Your task to perform on an android device: remove spam from my inbox in the gmail app Image 0: 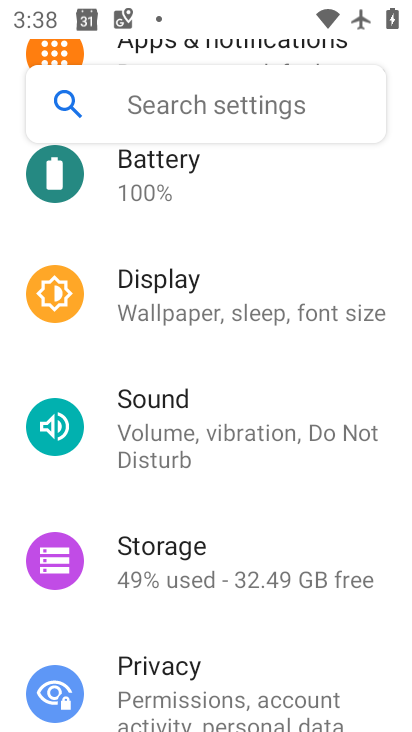
Step 0: press home button
Your task to perform on an android device: remove spam from my inbox in the gmail app Image 1: 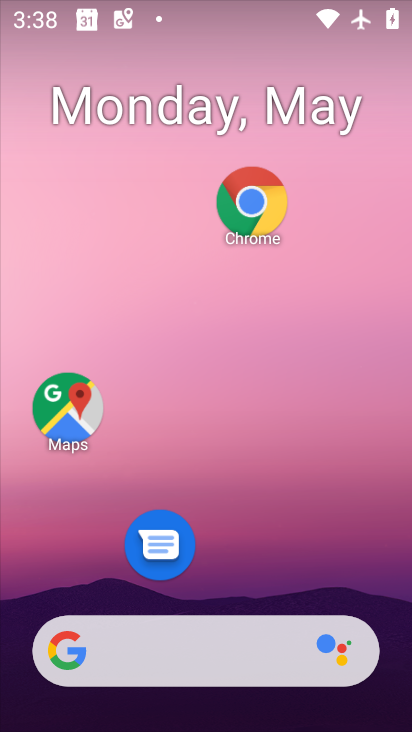
Step 1: drag from (235, 584) to (248, 221)
Your task to perform on an android device: remove spam from my inbox in the gmail app Image 2: 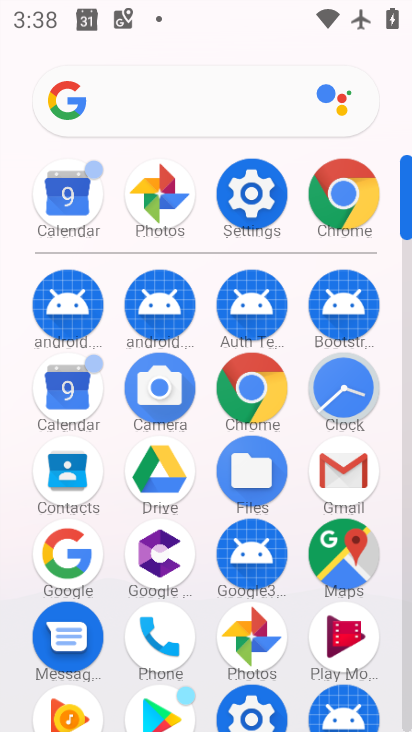
Step 2: click (331, 473)
Your task to perform on an android device: remove spam from my inbox in the gmail app Image 3: 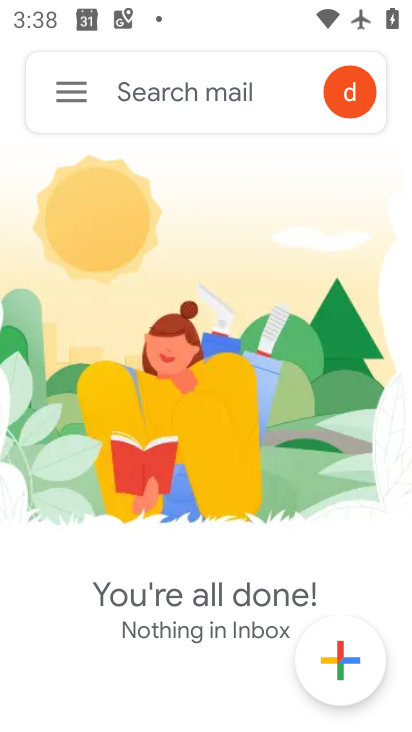
Step 3: click (343, 464)
Your task to perform on an android device: remove spam from my inbox in the gmail app Image 4: 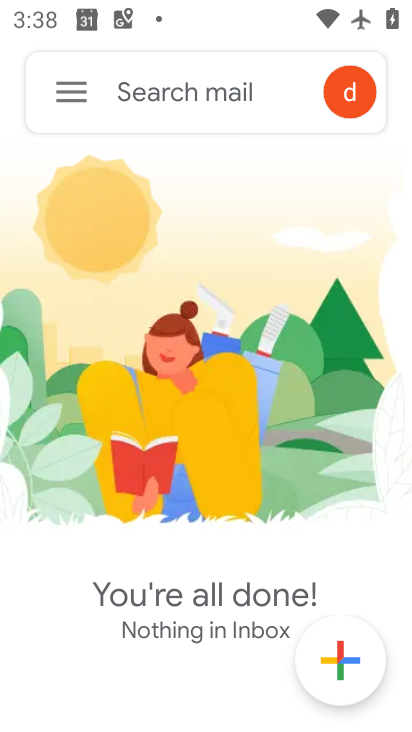
Step 4: click (77, 95)
Your task to perform on an android device: remove spam from my inbox in the gmail app Image 5: 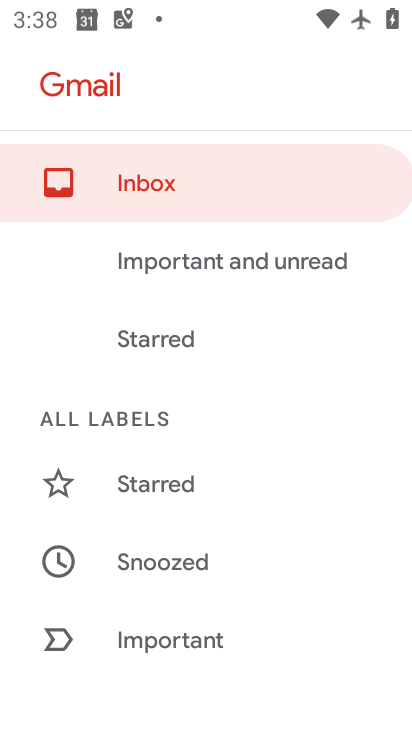
Step 5: drag from (204, 656) to (254, 294)
Your task to perform on an android device: remove spam from my inbox in the gmail app Image 6: 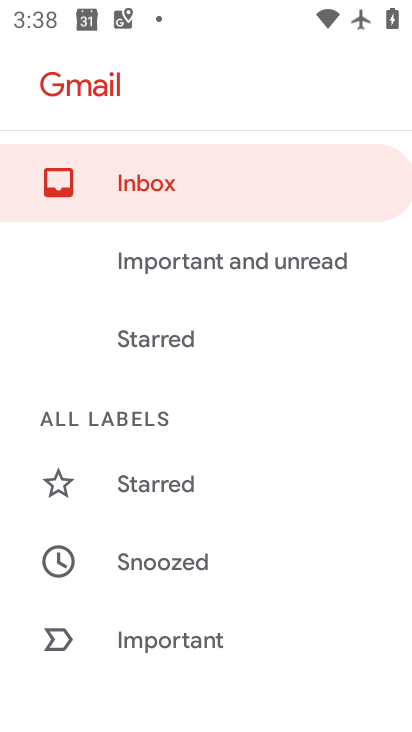
Step 6: drag from (210, 561) to (220, 334)
Your task to perform on an android device: remove spam from my inbox in the gmail app Image 7: 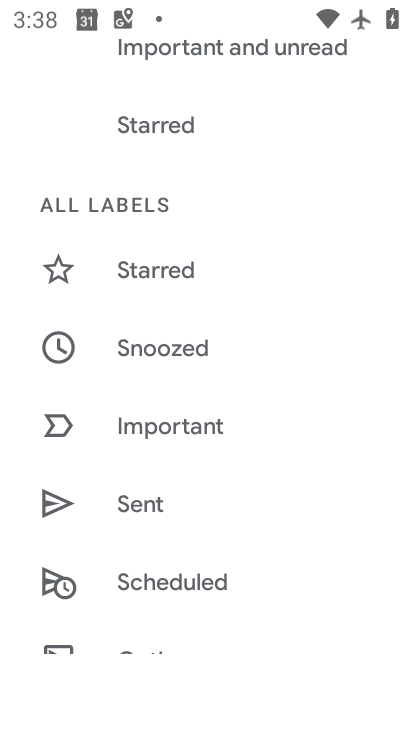
Step 7: drag from (169, 574) to (194, 353)
Your task to perform on an android device: remove spam from my inbox in the gmail app Image 8: 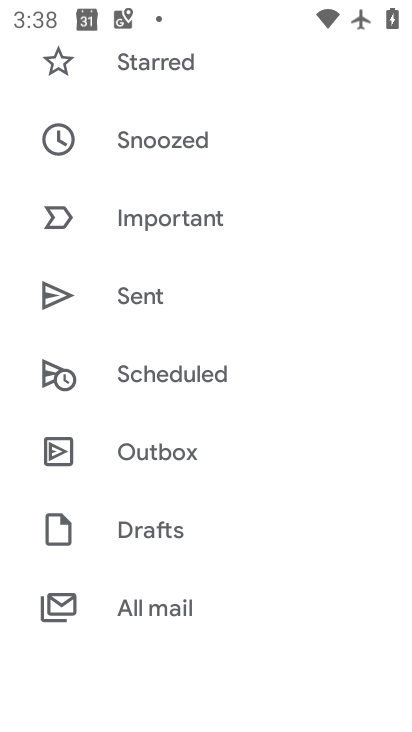
Step 8: drag from (183, 559) to (209, 343)
Your task to perform on an android device: remove spam from my inbox in the gmail app Image 9: 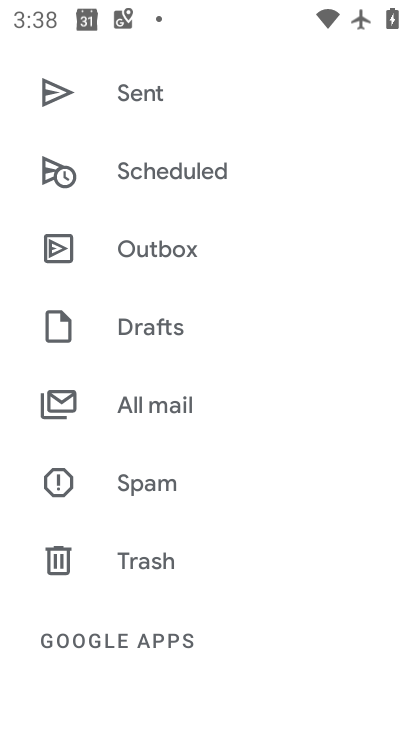
Step 9: click (180, 495)
Your task to perform on an android device: remove spam from my inbox in the gmail app Image 10: 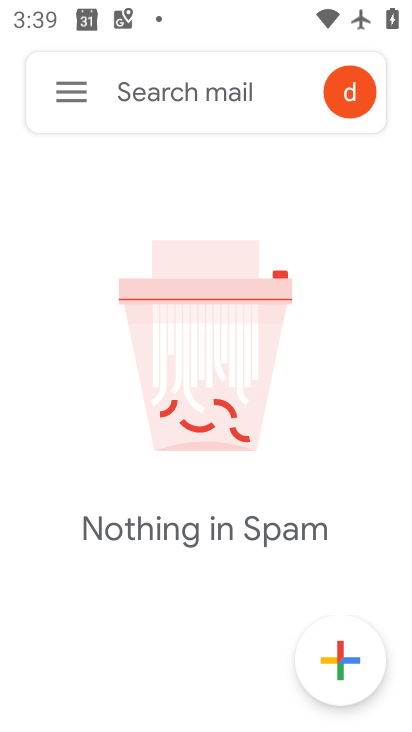
Step 10: task complete